Your task to perform on an android device: Open display settings Image 0: 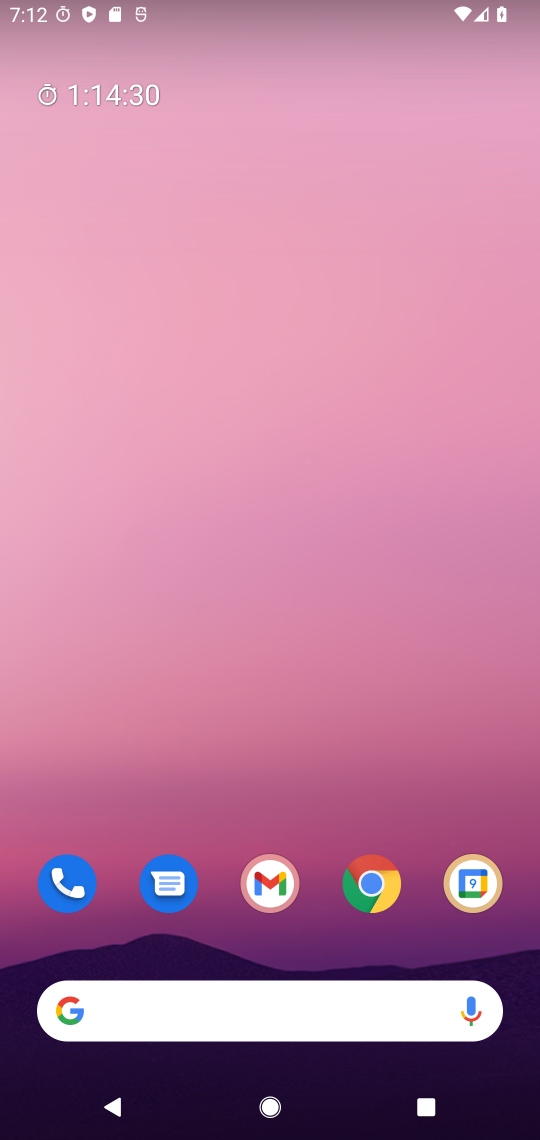
Step 0: drag from (291, 796) to (276, 210)
Your task to perform on an android device: Open display settings Image 1: 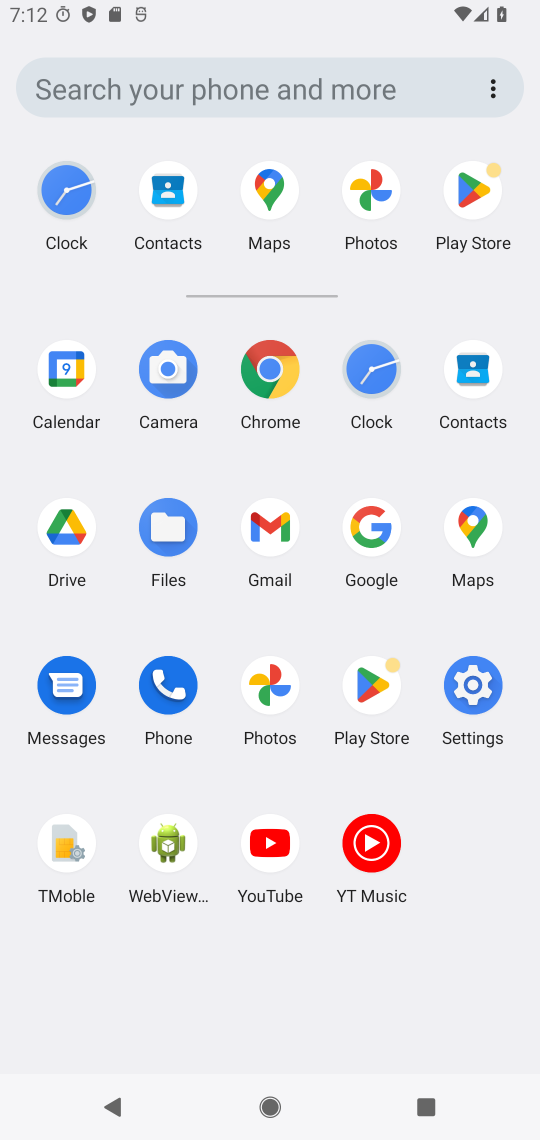
Step 1: click (443, 695)
Your task to perform on an android device: Open display settings Image 2: 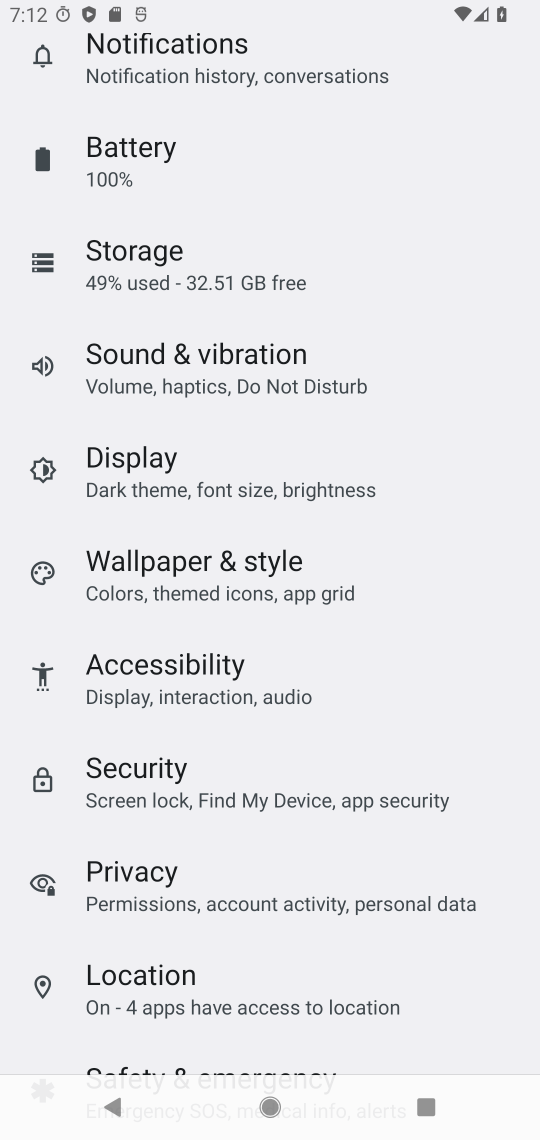
Step 2: drag from (306, 221) to (341, 795)
Your task to perform on an android device: Open display settings Image 3: 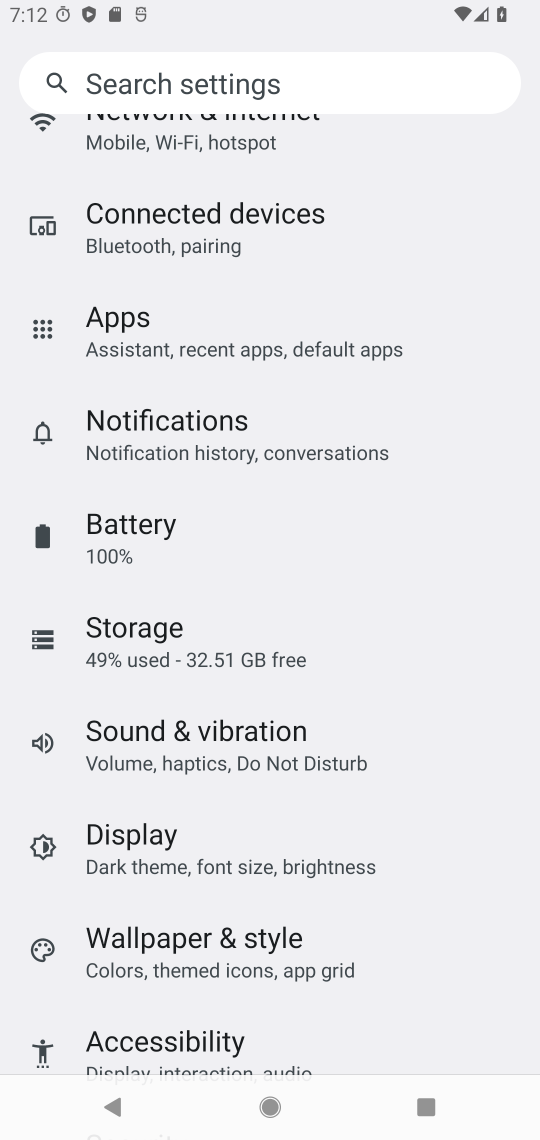
Step 3: drag from (210, 426) to (210, 762)
Your task to perform on an android device: Open display settings Image 4: 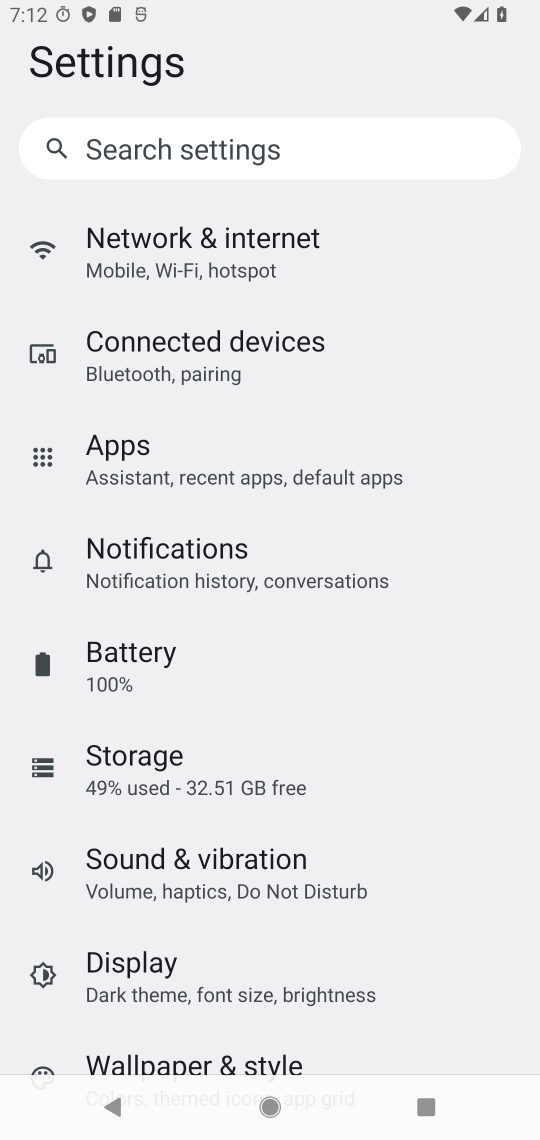
Step 4: click (148, 992)
Your task to perform on an android device: Open display settings Image 5: 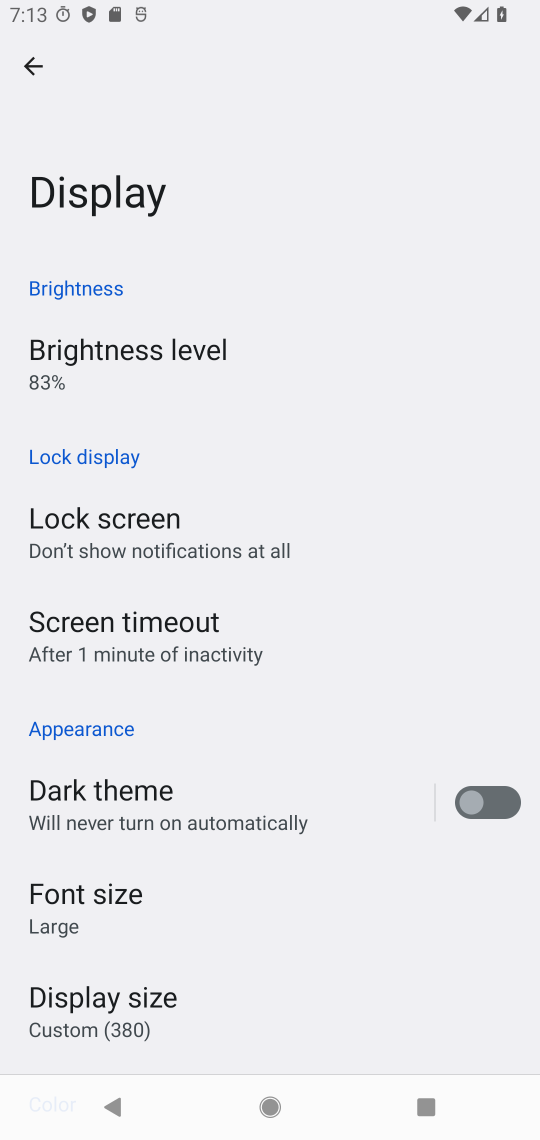
Step 5: task complete